Your task to perform on an android device: Open calendar and show me the third week of next month Image 0: 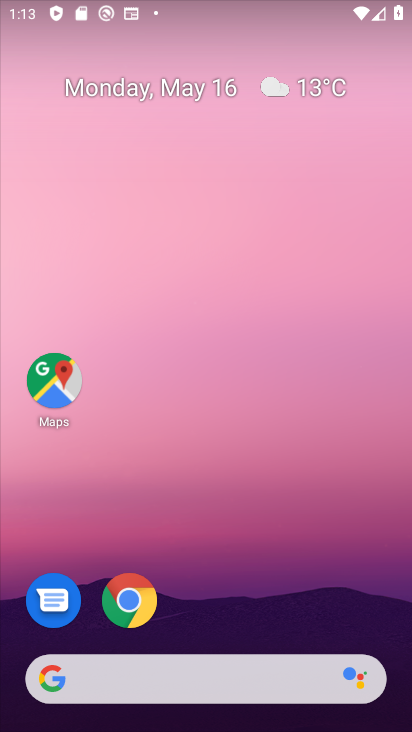
Step 0: drag from (223, 617) to (66, 45)
Your task to perform on an android device: Open calendar and show me the third week of next month Image 1: 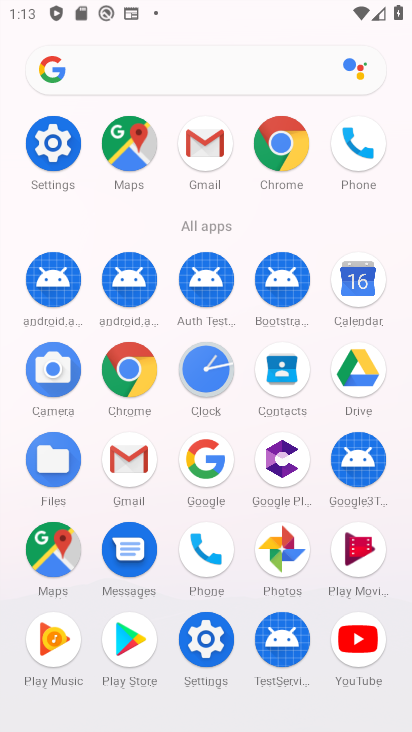
Step 1: click (359, 292)
Your task to perform on an android device: Open calendar and show me the third week of next month Image 2: 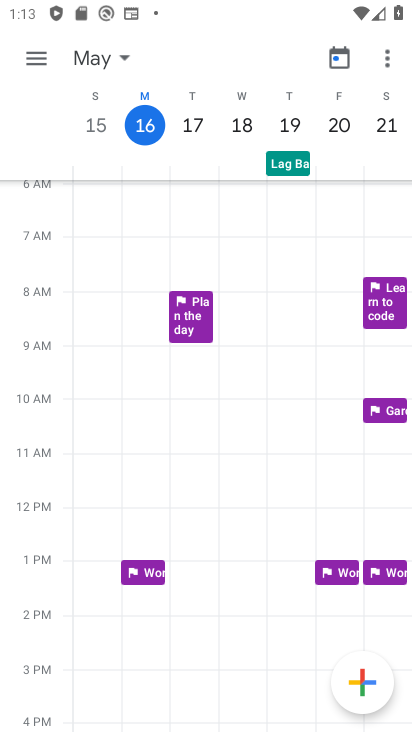
Step 2: click (104, 57)
Your task to perform on an android device: Open calendar and show me the third week of next month Image 3: 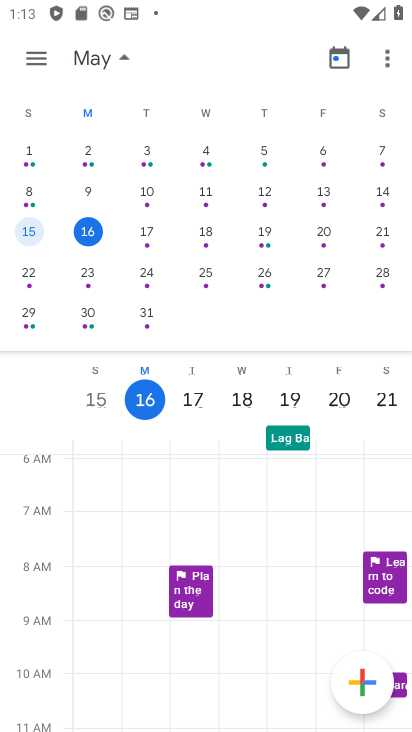
Step 3: drag from (337, 256) to (3, 242)
Your task to perform on an android device: Open calendar and show me the third week of next month Image 4: 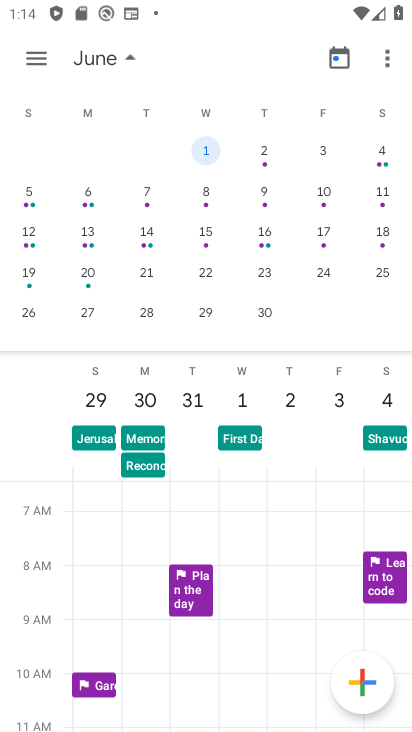
Step 4: click (8, 229)
Your task to perform on an android device: Open calendar and show me the third week of next month Image 5: 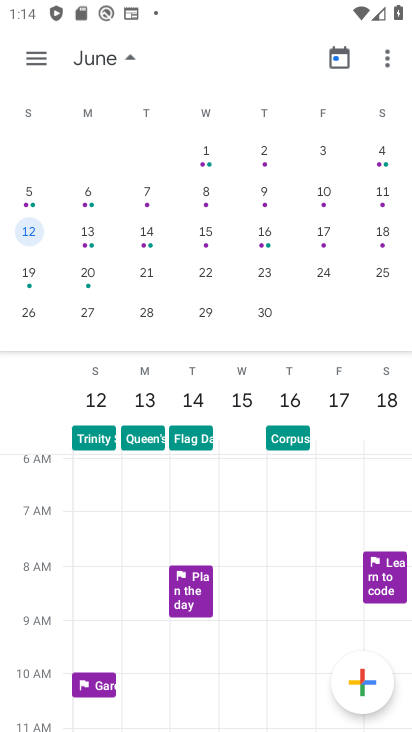
Step 5: click (102, 58)
Your task to perform on an android device: Open calendar and show me the third week of next month Image 6: 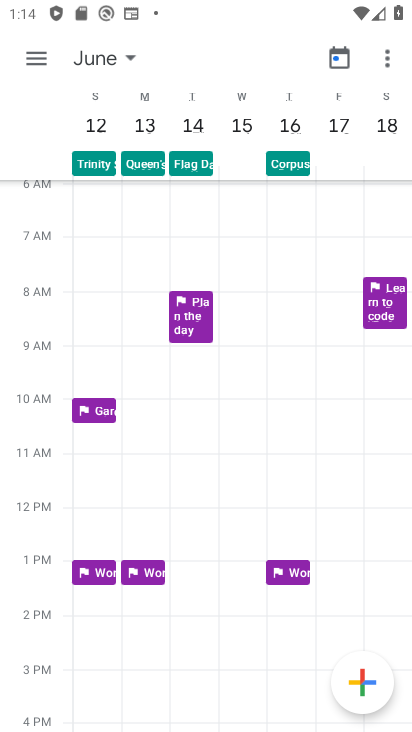
Step 6: task complete